Your task to perform on an android device: read, delete, or share a saved page in the chrome app Image 0: 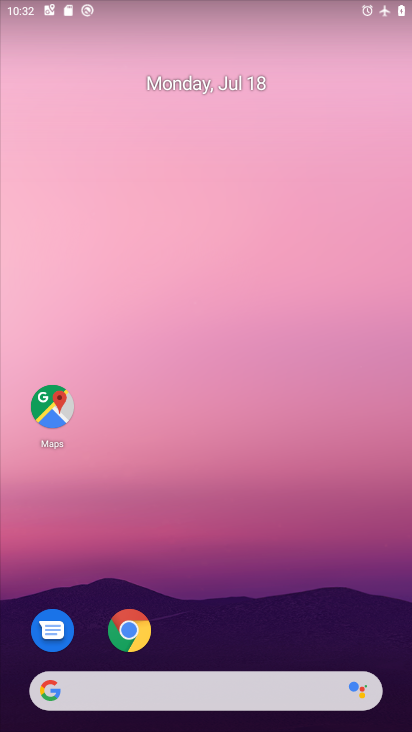
Step 0: click (215, 639)
Your task to perform on an android device: read, delete, or share a saved page in the chrome app Image 1: 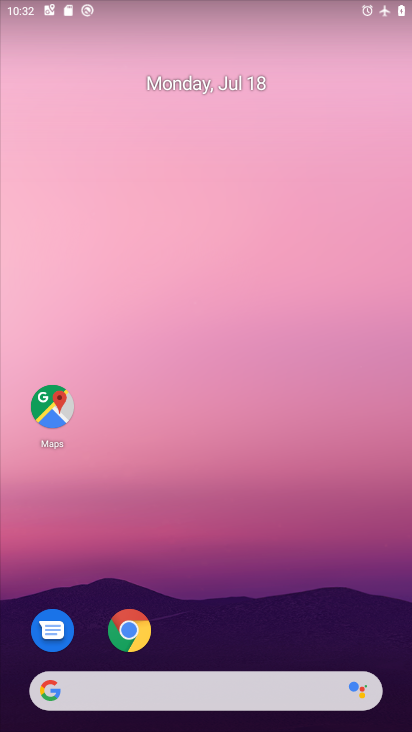
Step 1: click (142, 629)
Your task to perform on an android device: read, delete, or share a saved page in the chrome app Image 2: 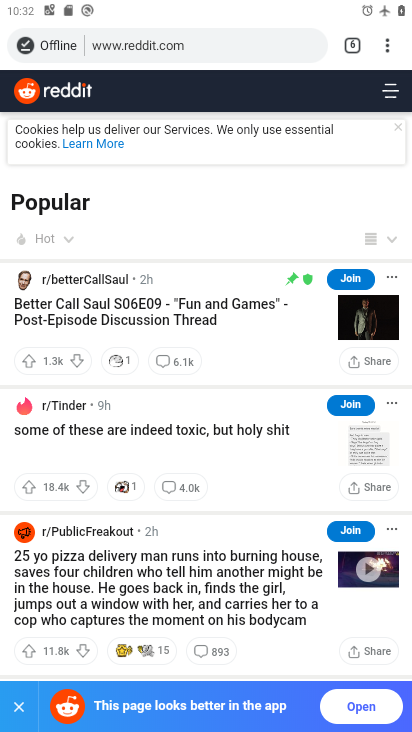
Step 2: click (388, 61)
Your task to perform on an android device: read, delete, or share a saved page in the chrome app Image 3: 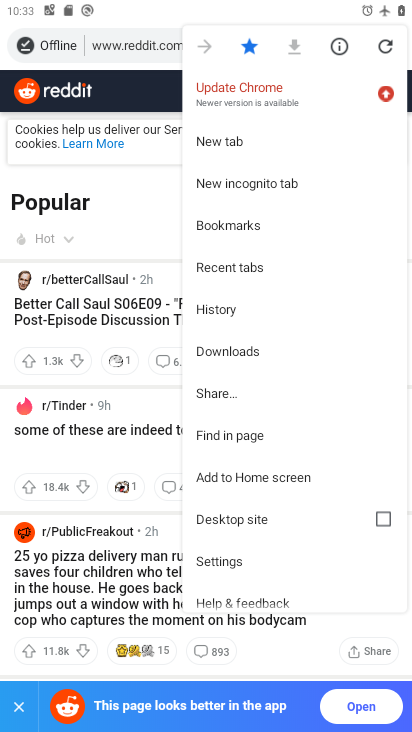
Step 3: click (259, 346)
Your task to perform on an android device: read, delete, or share a saved page in the chrome app Image 4: 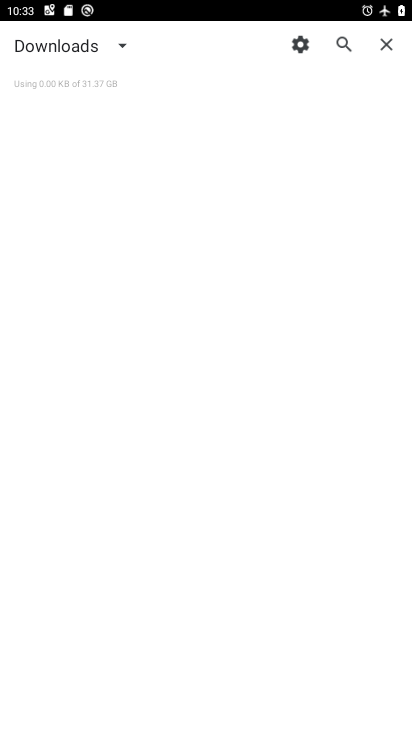
Step 4: click (120, 40)
Your task to perform on an android device: read, delete, or share a saved page in the chrome app Image 5: 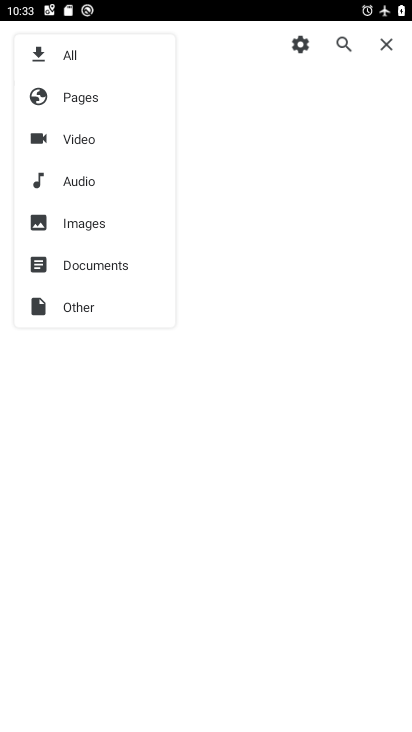
Step 5: click (88, 104)
Your task to perform on an android device: read, delete, or share a saved page in the chrome app Image 6: 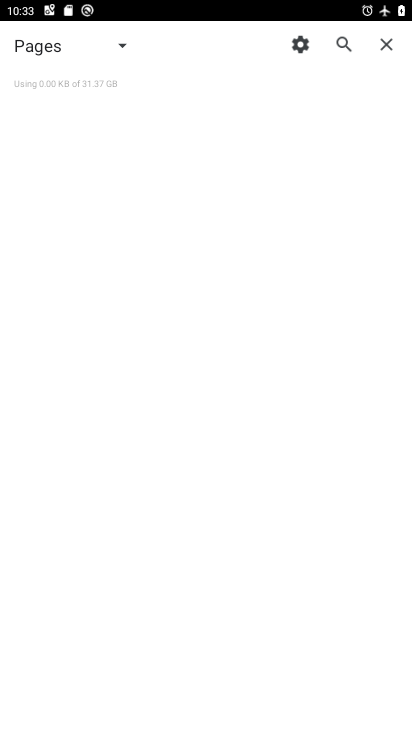
Step 6: task complete